Your task to perform on an android device: Open network settings Image 0: 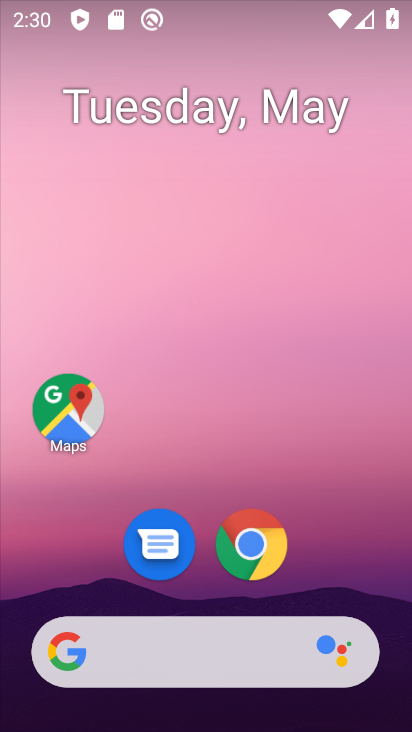
Step 0: drag from (341, 583) to (293, 168)
Your task to perform on an android device: Open network settings Image 1: 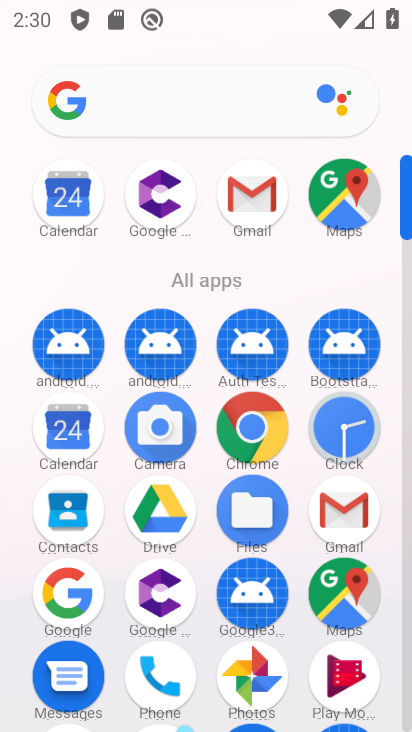
Step 1: drag from (299, 553) to (330, 285)
Your task to perform on an android device: Open network settings Image 2: 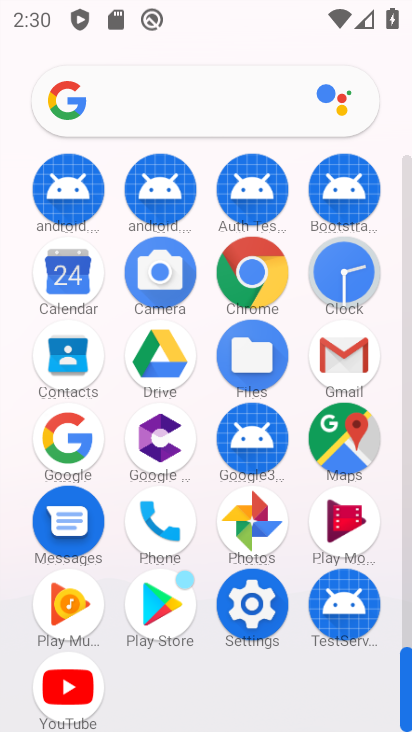
Step 2: click (249, 603)
Your task to perform on an android device: Open network settings Image 3: 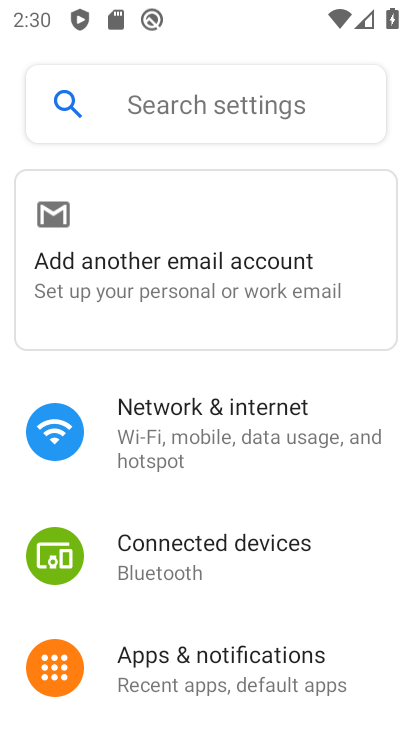
Step 3: click (210, 409)
Your task to perform on an android device: Open network settings Image 4: 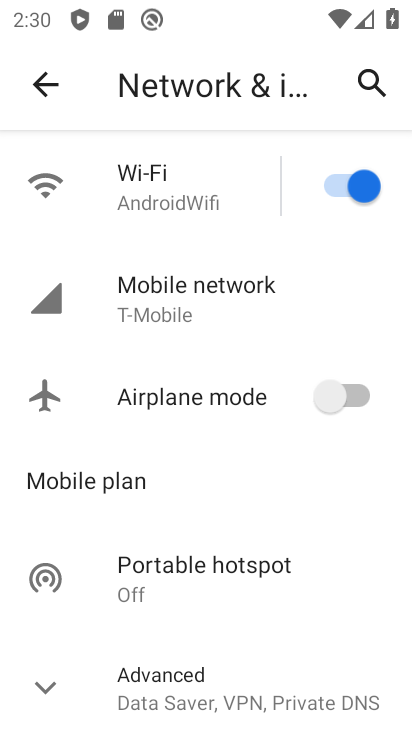
Step 4: click (165, 284)
Your task to perform on an android device: Open network settings Image 5: 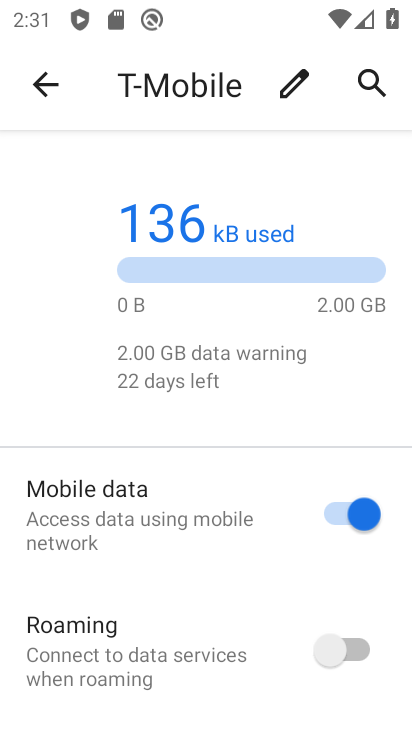
Step 5: task complete